Your task to perform on an android device: Go to eBay Image 0: 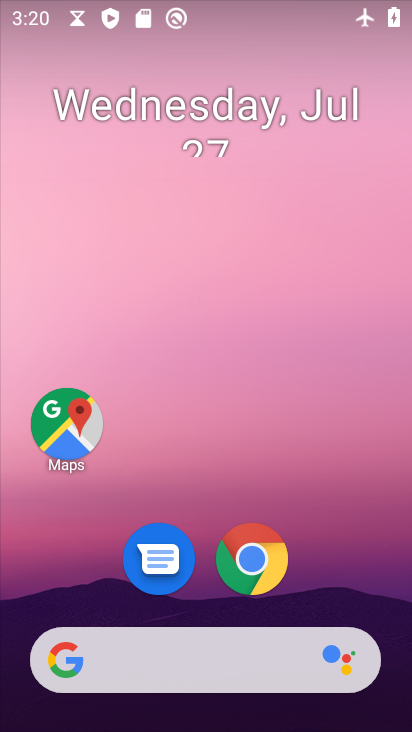
Step 0: click (263, 563)
Your task to perform on an android device: Go to eBay Image 1: 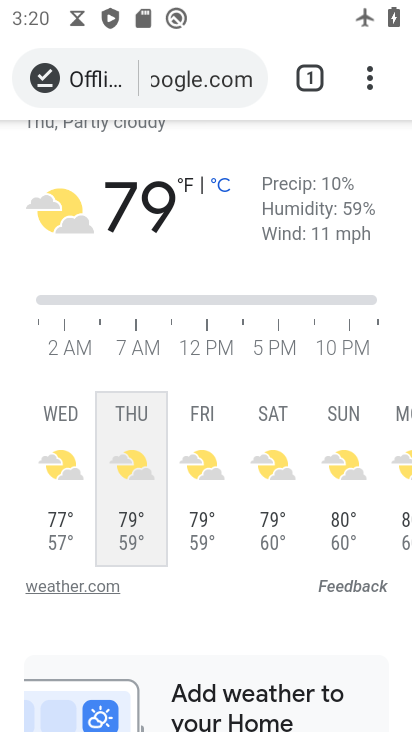
Step 1: click (319, 70)
Your task to perform on an android device: Go to eBay Image 2: 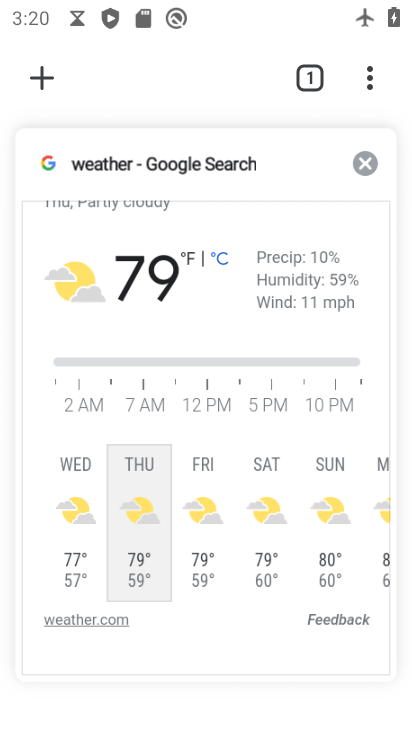
Step 2: click (39, 85)
Your task to perform on an android device: Go to eBay Image 3: 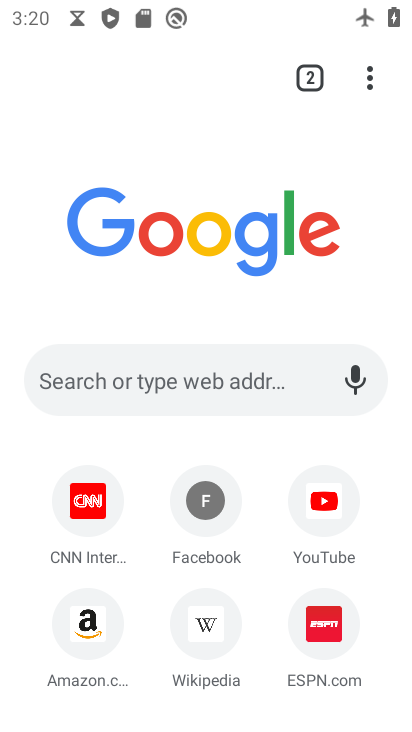
Step 3: click (136, 376)
Your task to perform on an android device: Go to eBay Image 4: 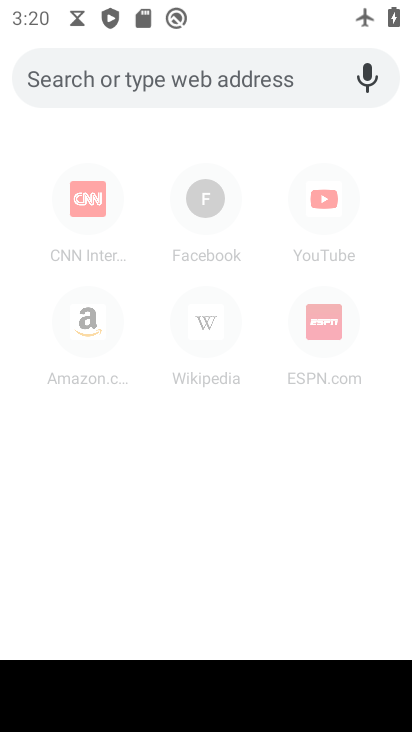
Step 4: type "ebay"
Your task to perform on an android device: Go to eBay Image 5: 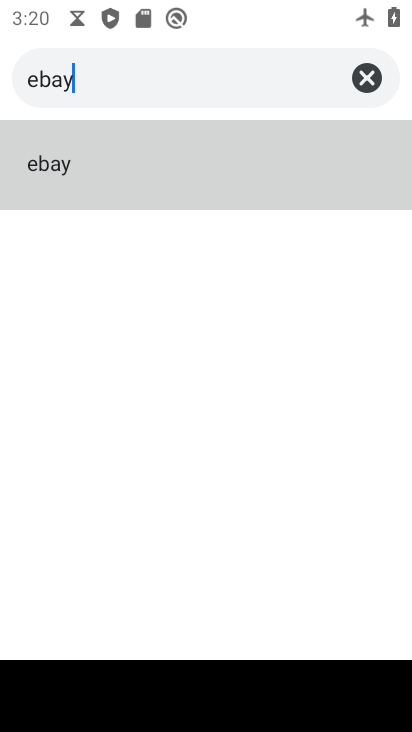
Step 5: click (132, 133)
Your task to perform on an android device: Go to eBay Image 6: 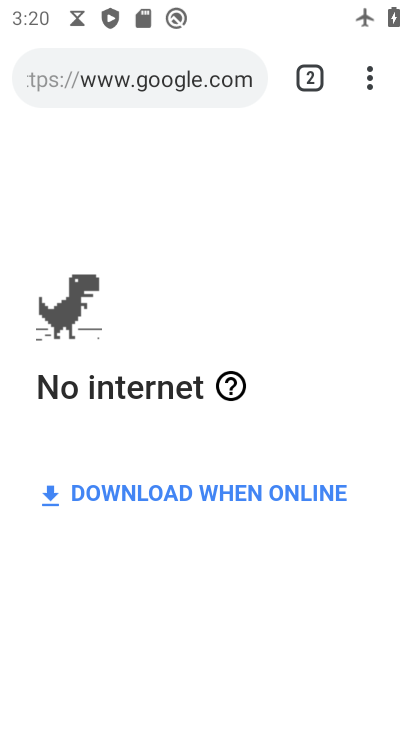
Step 6: drag from (349, 13) to (285, 679)
Your task to perform on an android device: Go to eBay Image 7: 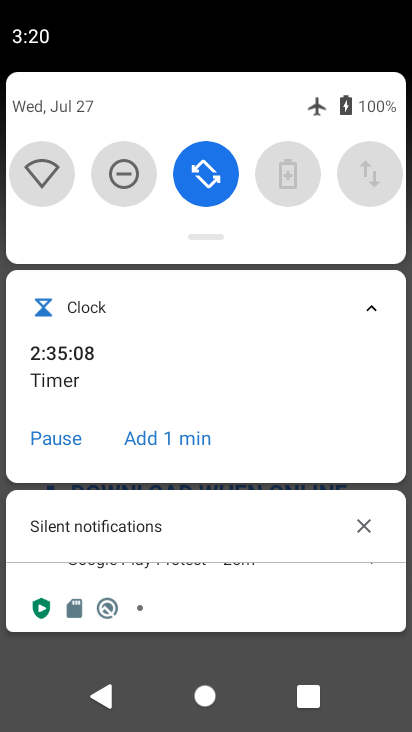
Step 7: drag from (217, 226) to (12, 273)
Your task to perform on an android device: Go to eBay Image 8: 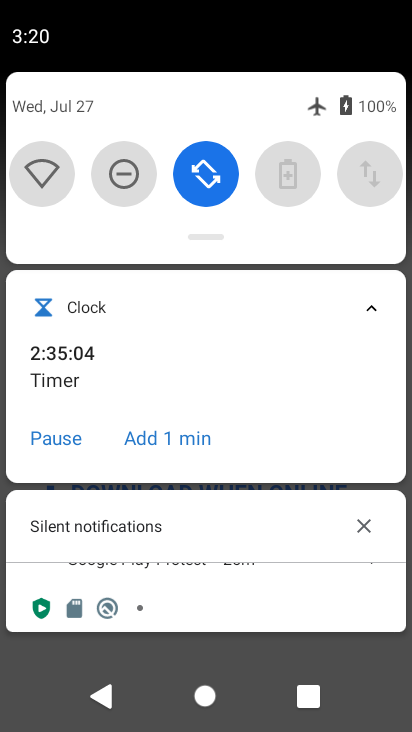
Step 8: drag from (220, 214) to (213, 690)
Your task to perform on an android device: Go to eBay Image 9: 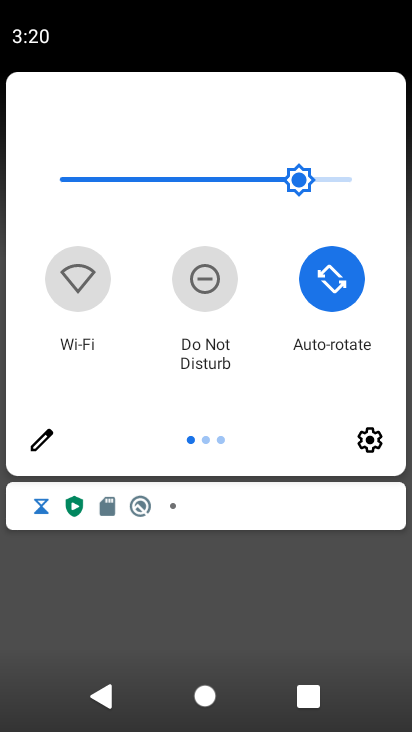
Step 9: drag from (372, 282) to (5, 298)
Your task to perform on an android device: Go to eBay Image 10: 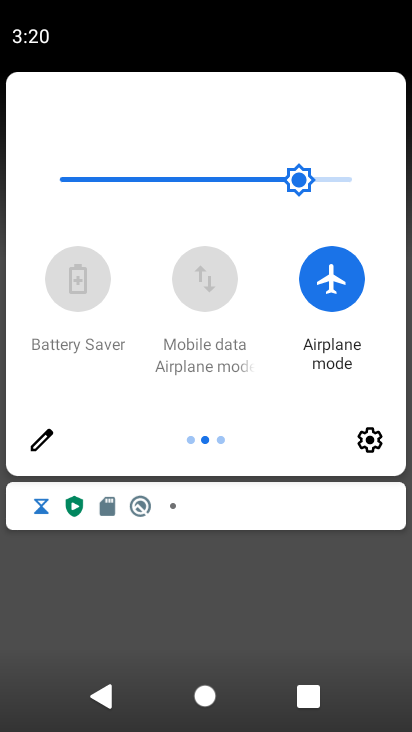
Step 10: click (320, 272)
Your task to perform on an android device: Go to eBay Image 11: 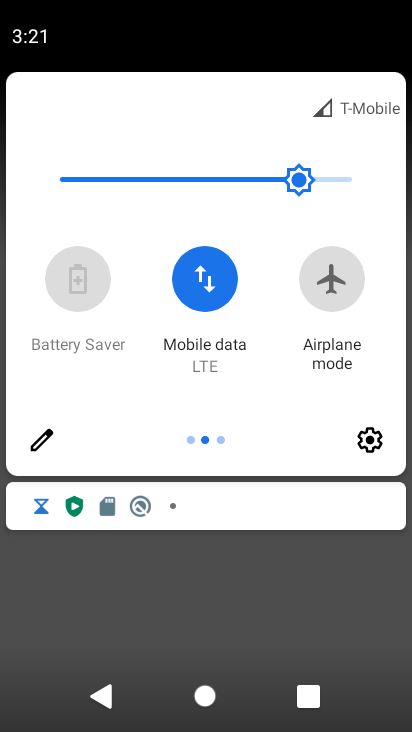
Step 11: click (248, 576)
Your task to perform on an android device: Go to eBay Image 12: 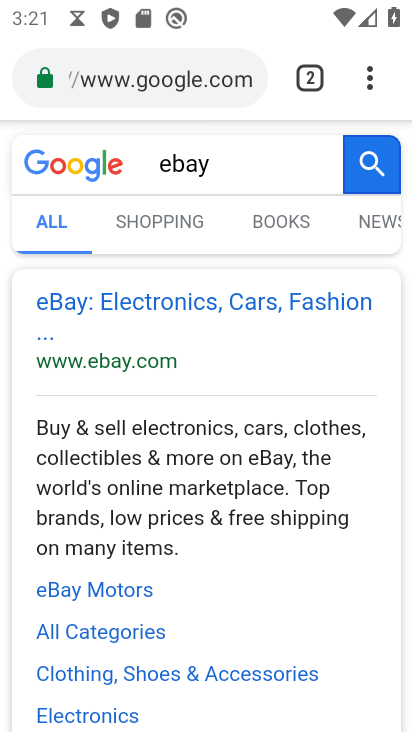
Step 12: click (176, 303)
Your task to perform on an android device: Go to eBay Image 13: 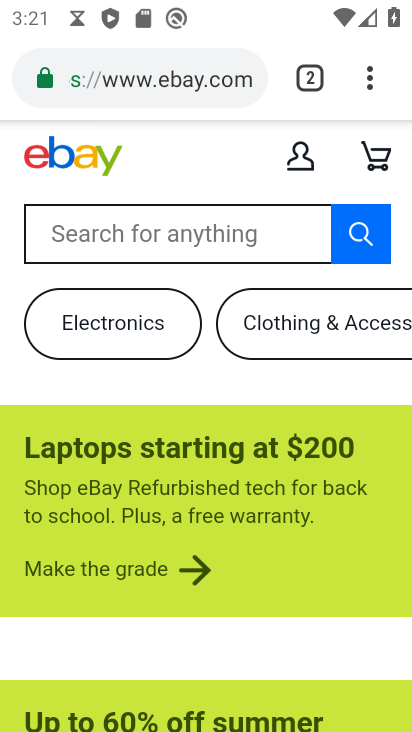
Step 13: task complete